Your task to perform on an android device: Open Yahoo.com Image 0: 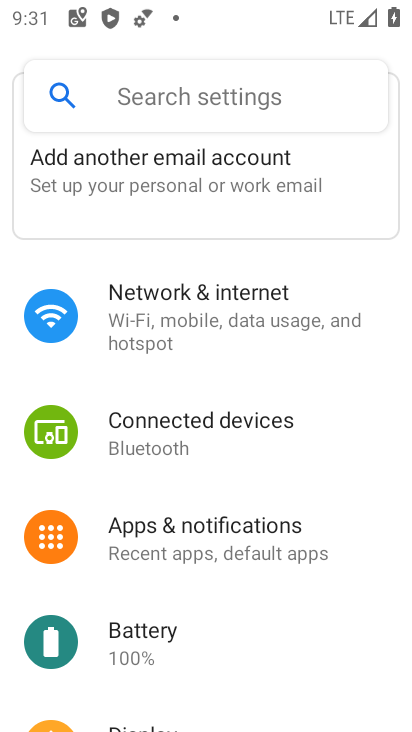
Step 0: press home button
Your task to perform on an android device: Open Yahoo.com Image 1: 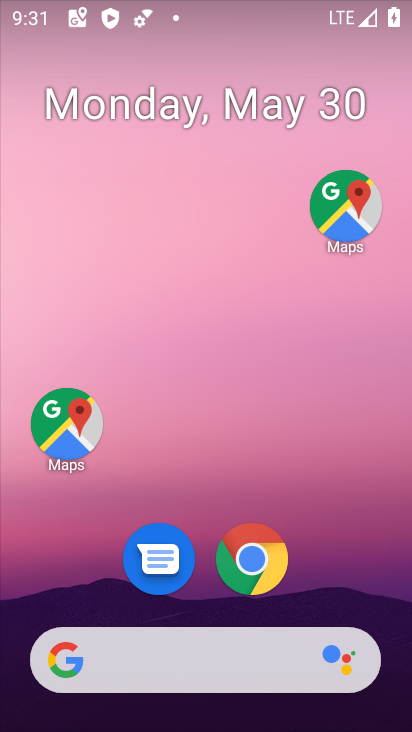
Step 1: click (257, 574)
Your task to perform on an android device: Open Yahoo.com Image 2: 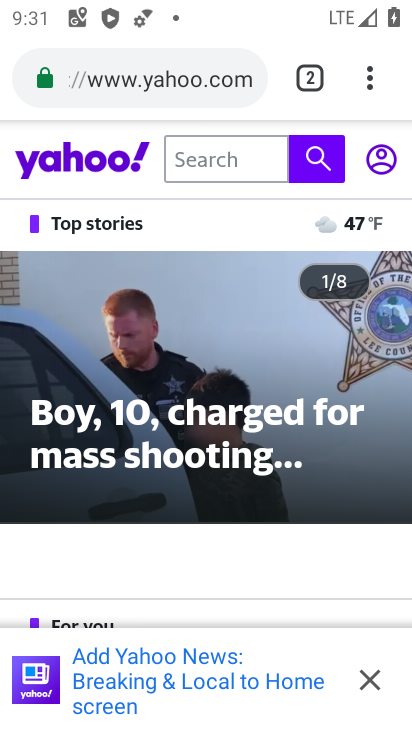
Step 2: task complete